Your task to perform on an android device: Add "logitech g pro" to the cart on ebay.com, then select checkout. Image 0: 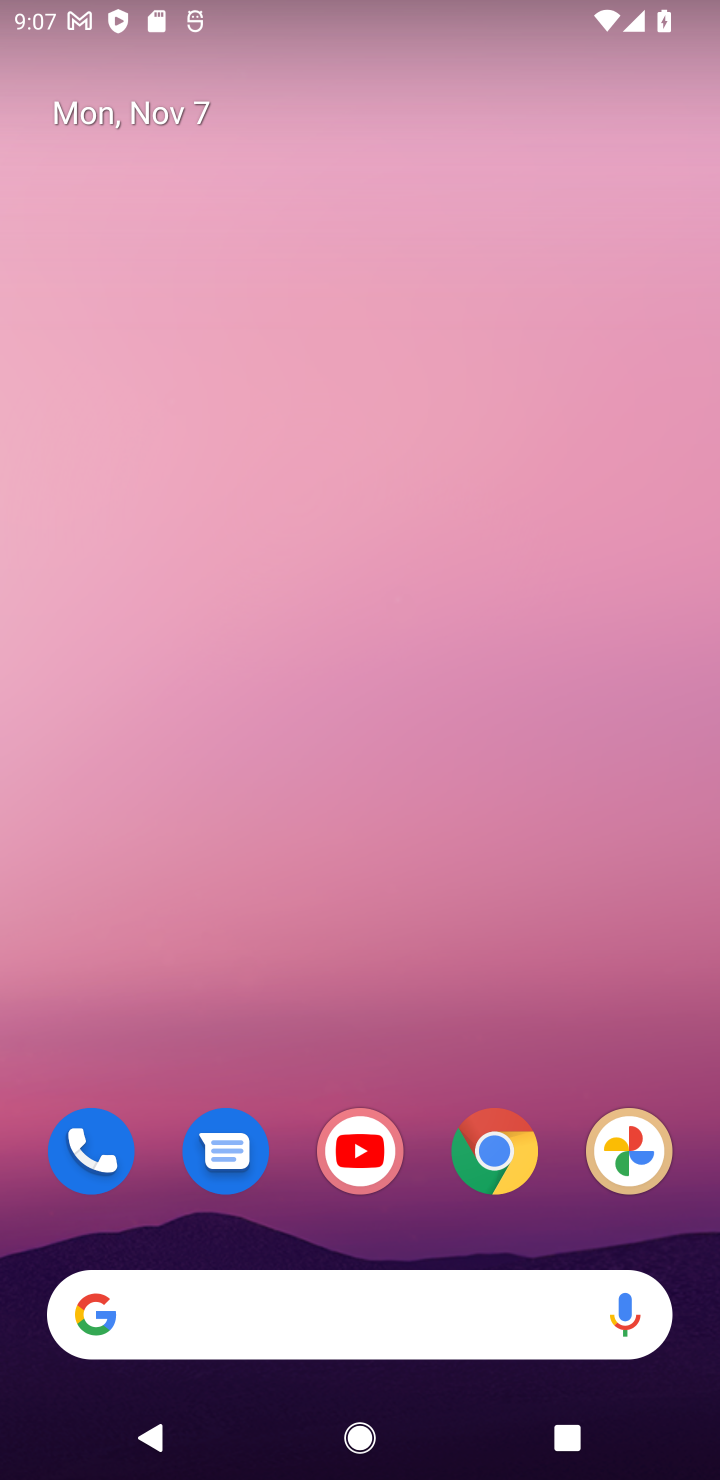
Step 0: press home button
Your task to perform on an android device: Add "logitech g pro" to the cart on ebay.com, then select checkout. Image 1: 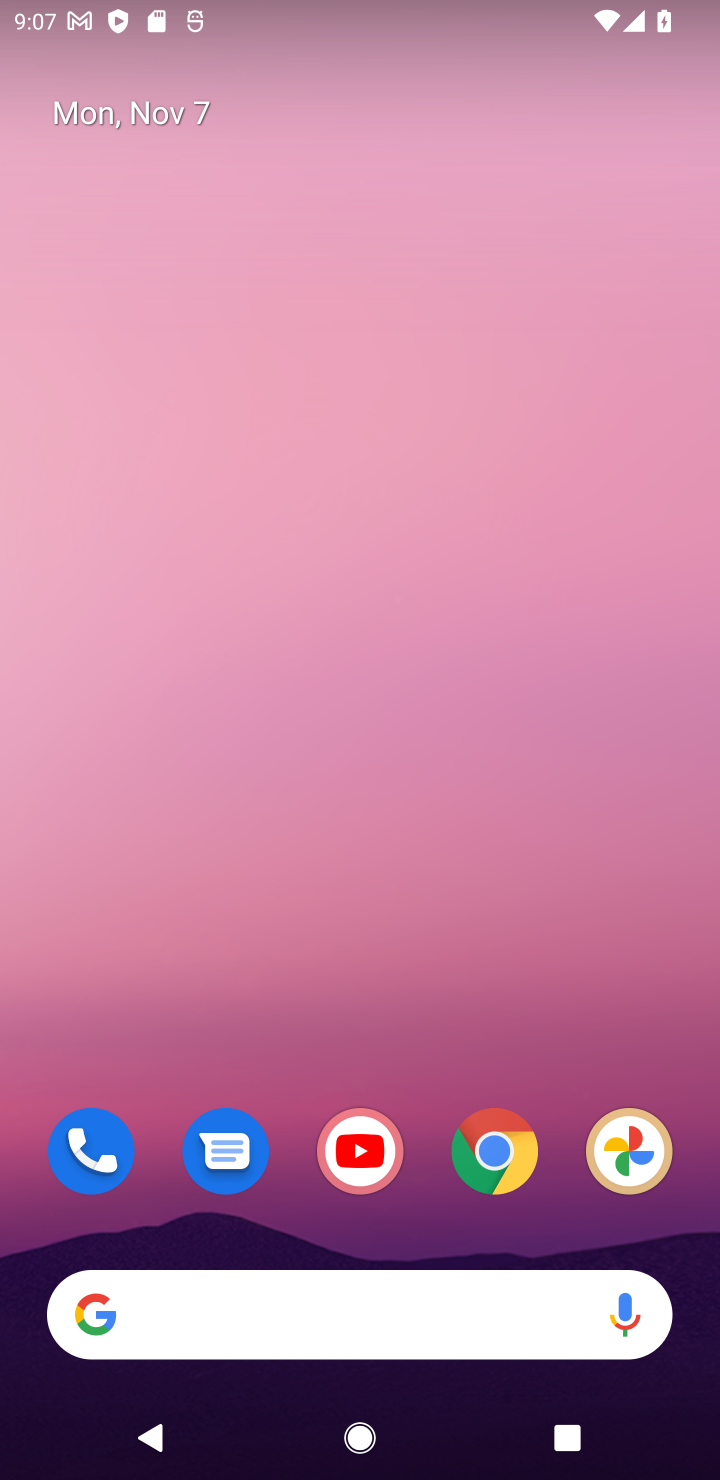
Step 1: click (511, 1159)
Your task to perform on an android device: Add "logitech g pro" to the cart on ebay.com, then select checkout. Image 2: 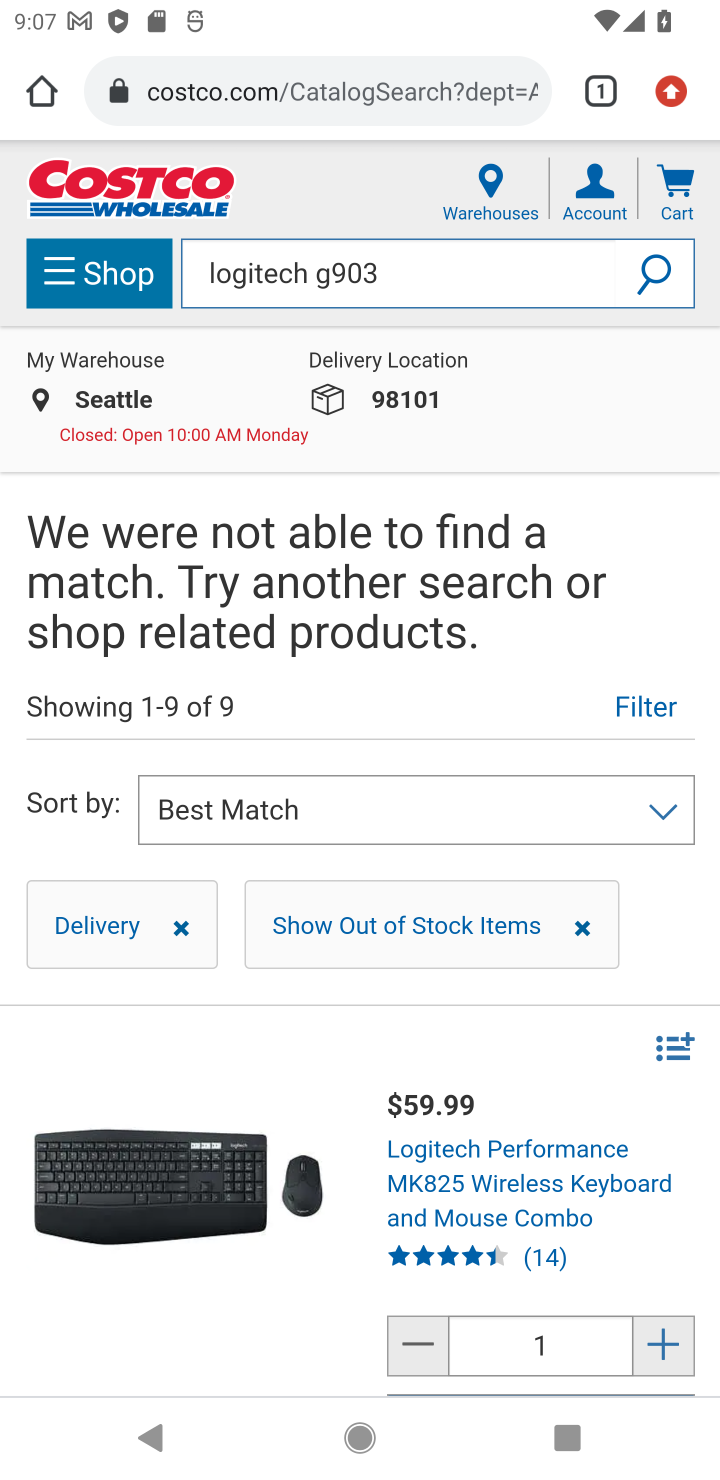
Step 2: click (314, 93)
Your task to perform on an android device: Add "logitech g pro" to the cart on ebay.com, then select checkout. Image 3: 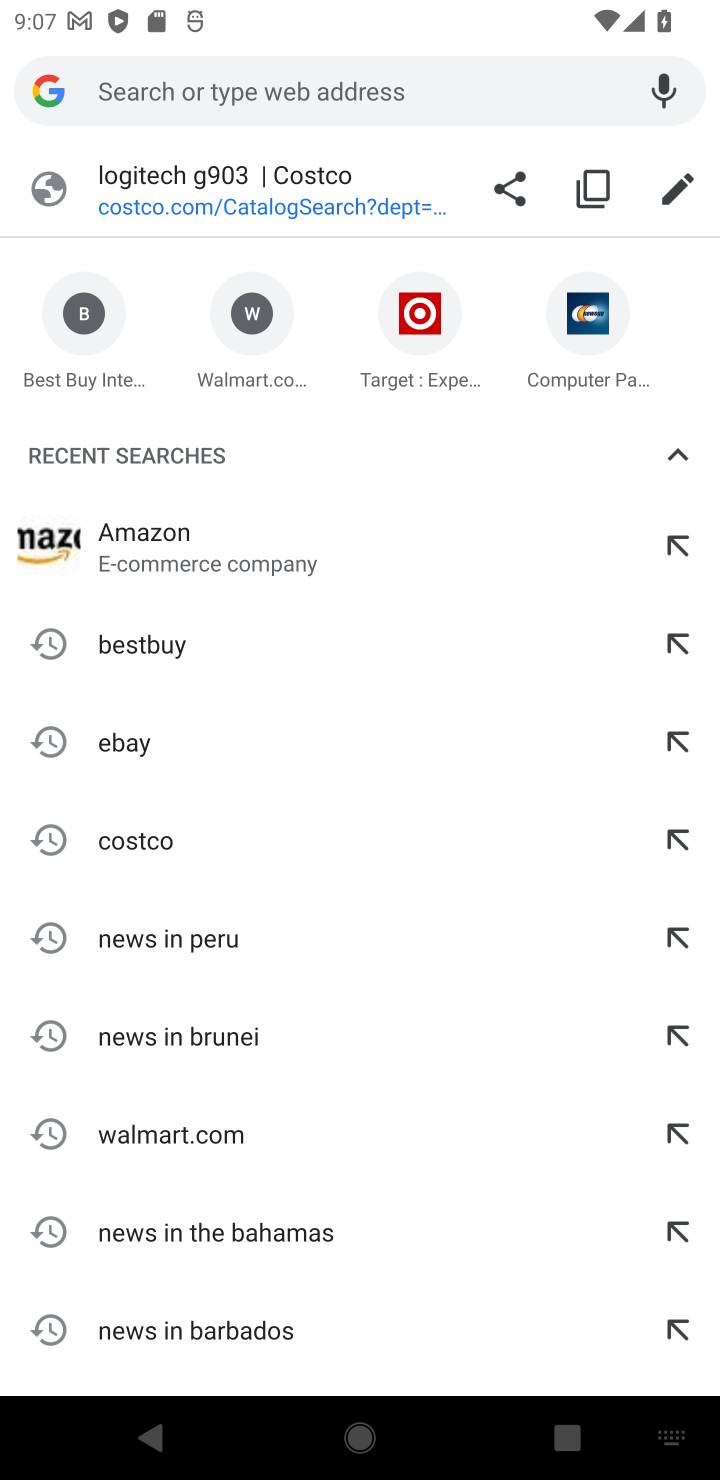
Step 3: click (121, 734)
Your task to perform on an android device: Add "logitech g pro" to the cart on ebay.com, then select checkout. Image 4: 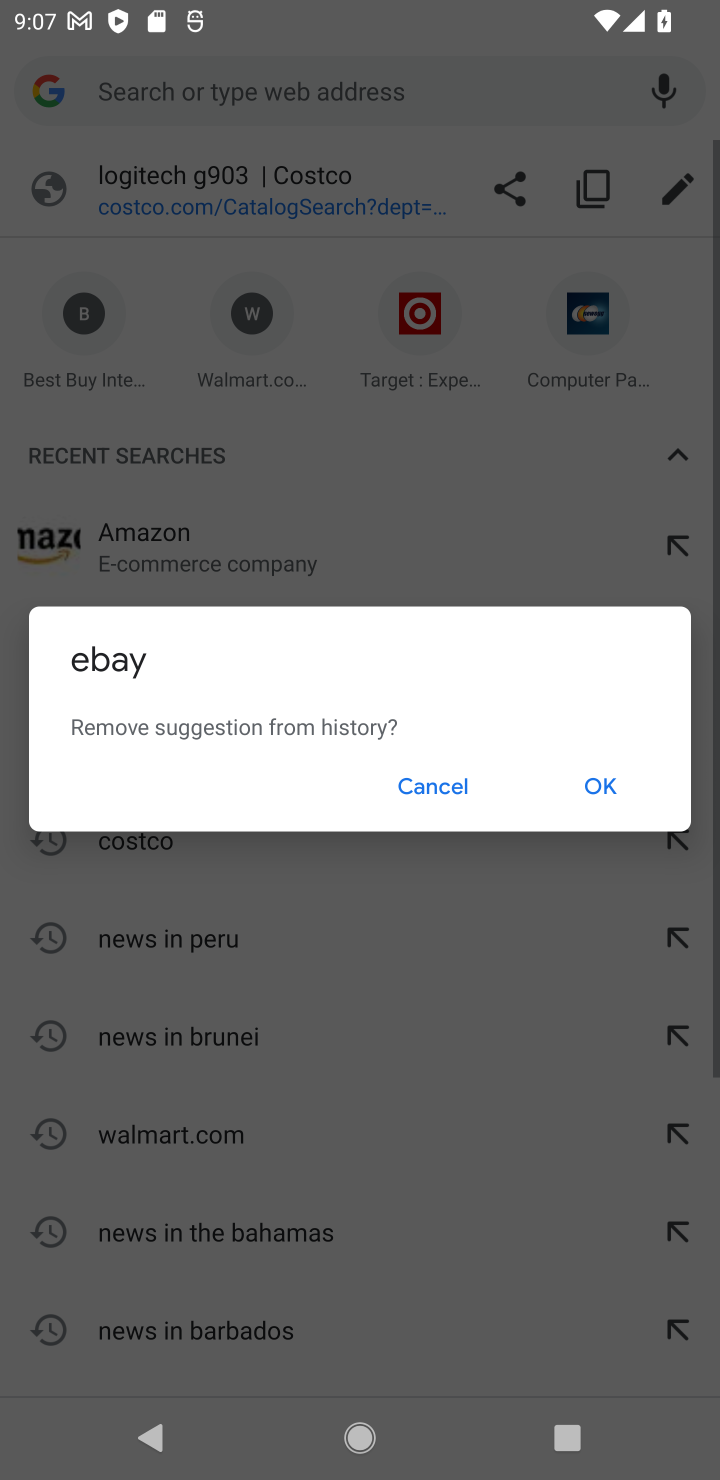
Step 4: click (431, 771)
Your task to perform on an android device: Add "logitech g pro" to the cart on ebay.com, then select checkout. Image 5: 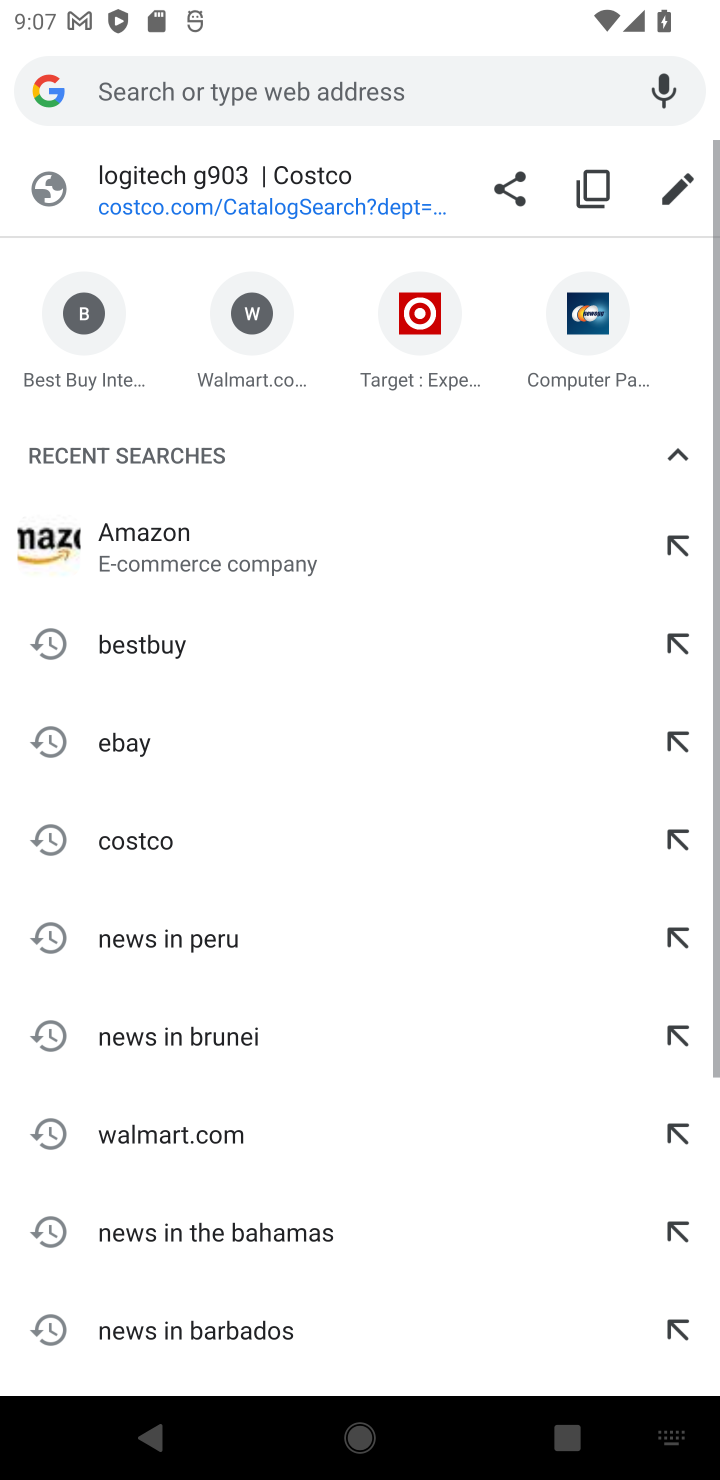
Step 5: click (119, 742)
Your task to perform on an android device: Add "logitech g pro" to the cart on ebay.com, then select checkout. Image 6: 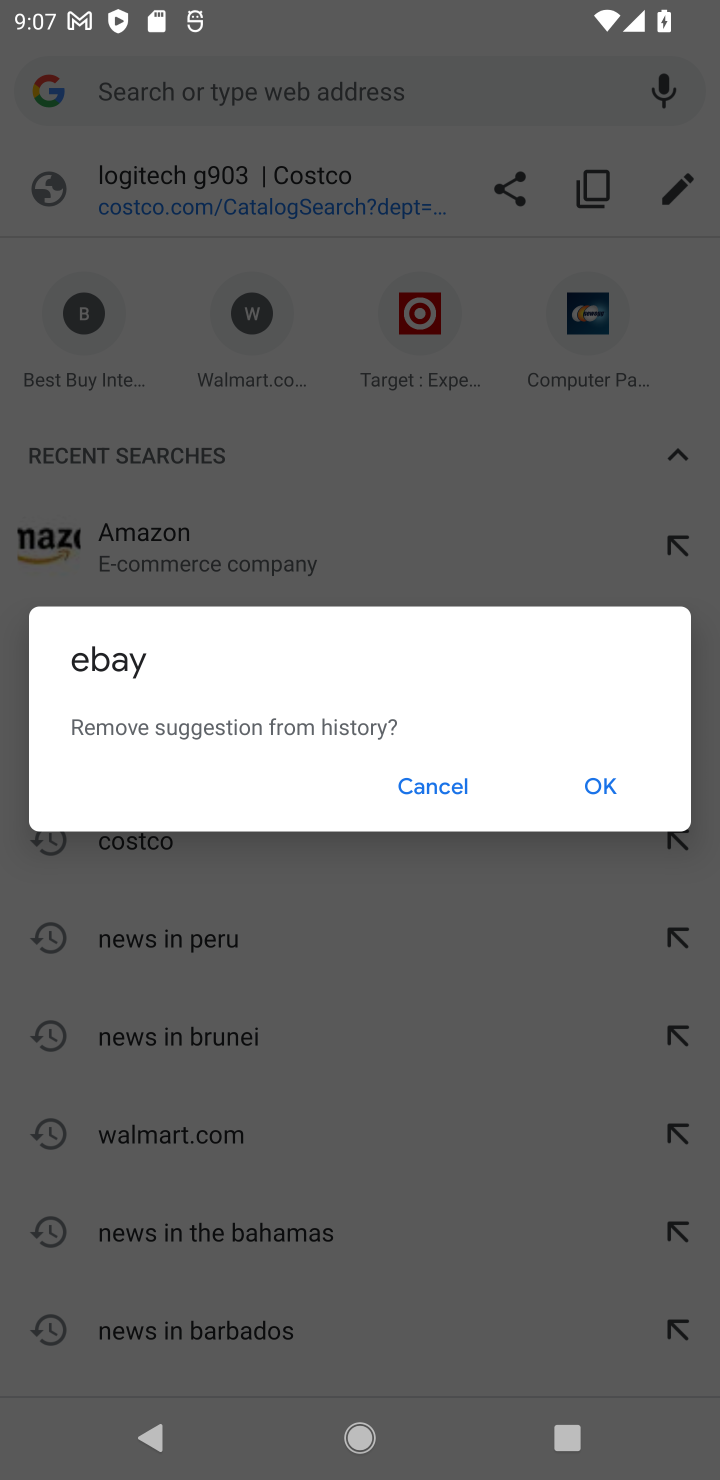
Step 6: click (446, 781)
Your task to perform on an android device: Add "logitech g pro" to the cart on ebay.com, then select checkout. Image 7: 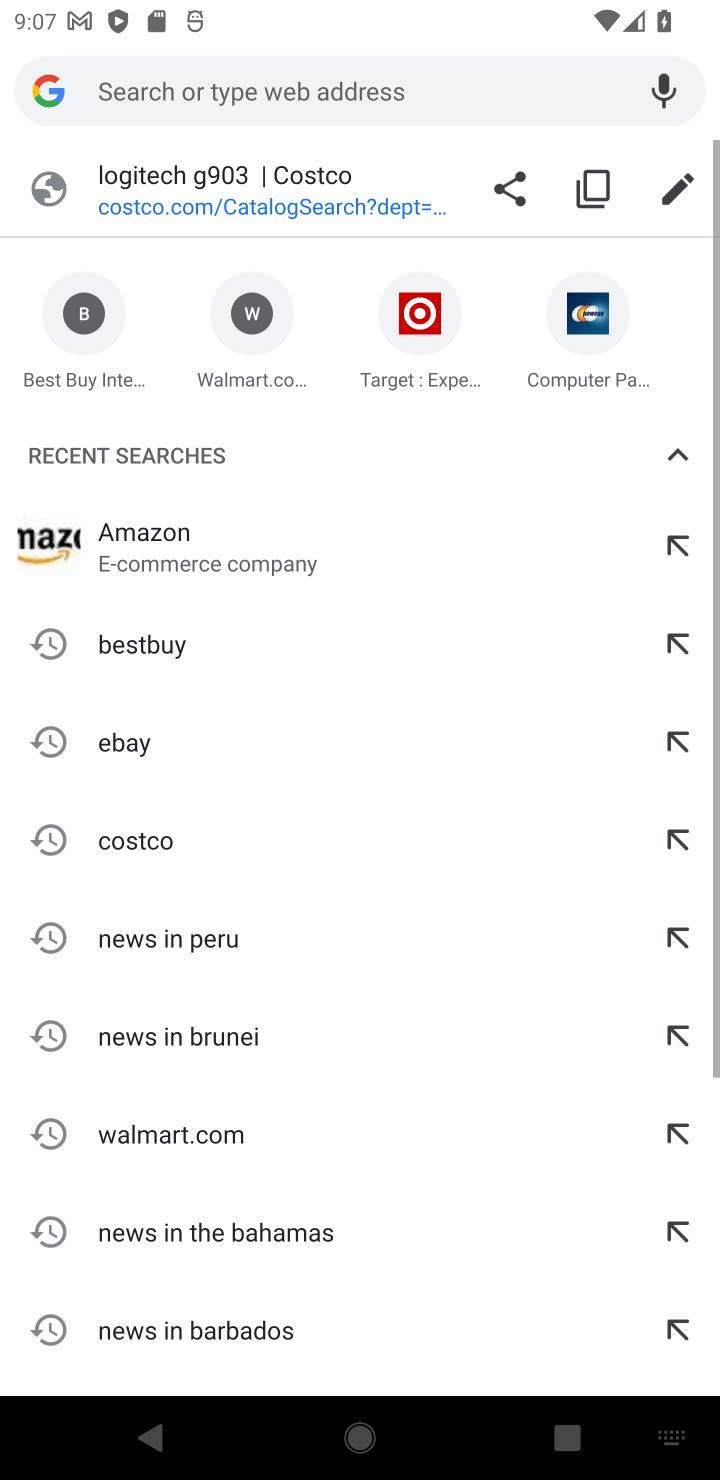
Step 7: click (109, 743)
Your task to perform on an android device: Add "logitech g pro" to the cart on ebay.com, then select checkout. Image 8: 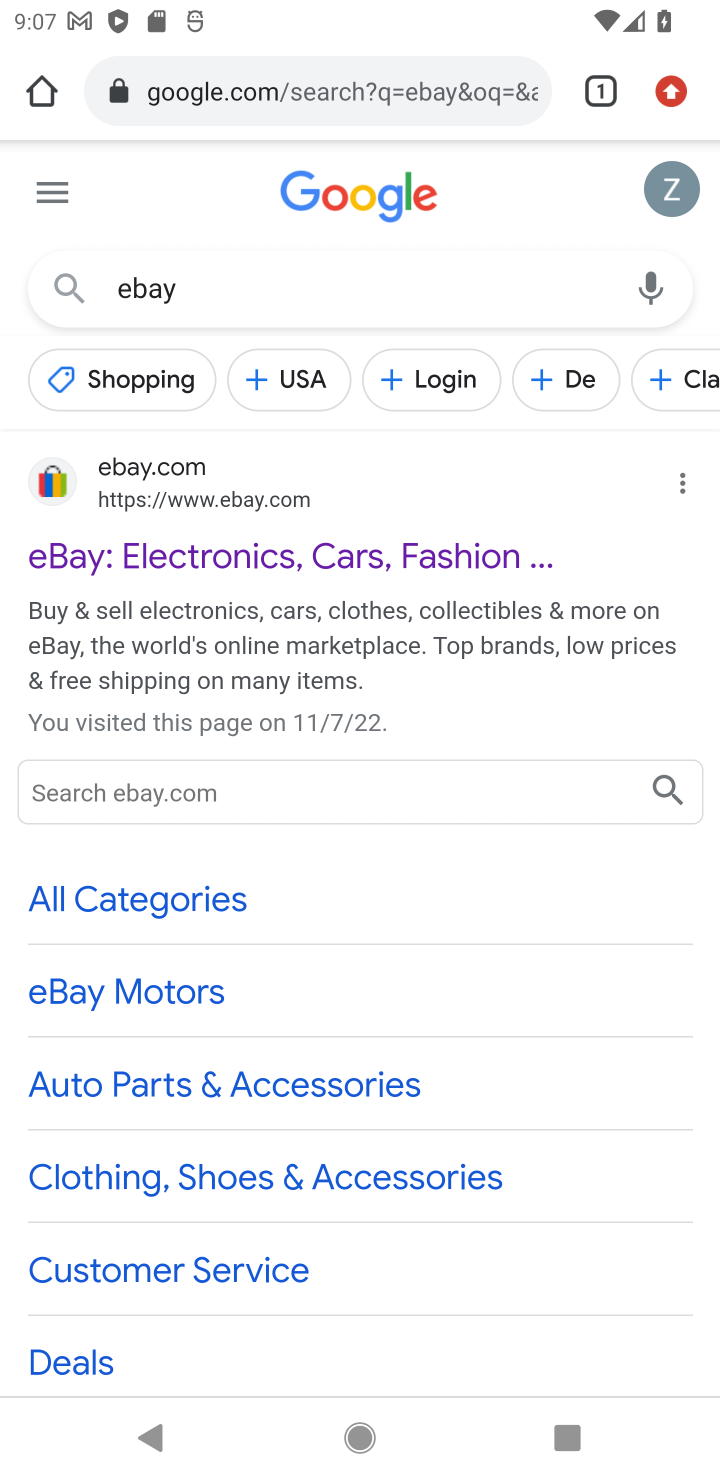
Step 8: click (227, 559)
Your task to perform on an android device: Add "logitech g pro" to the cart on ebay.com, then select checkout. Image 9: 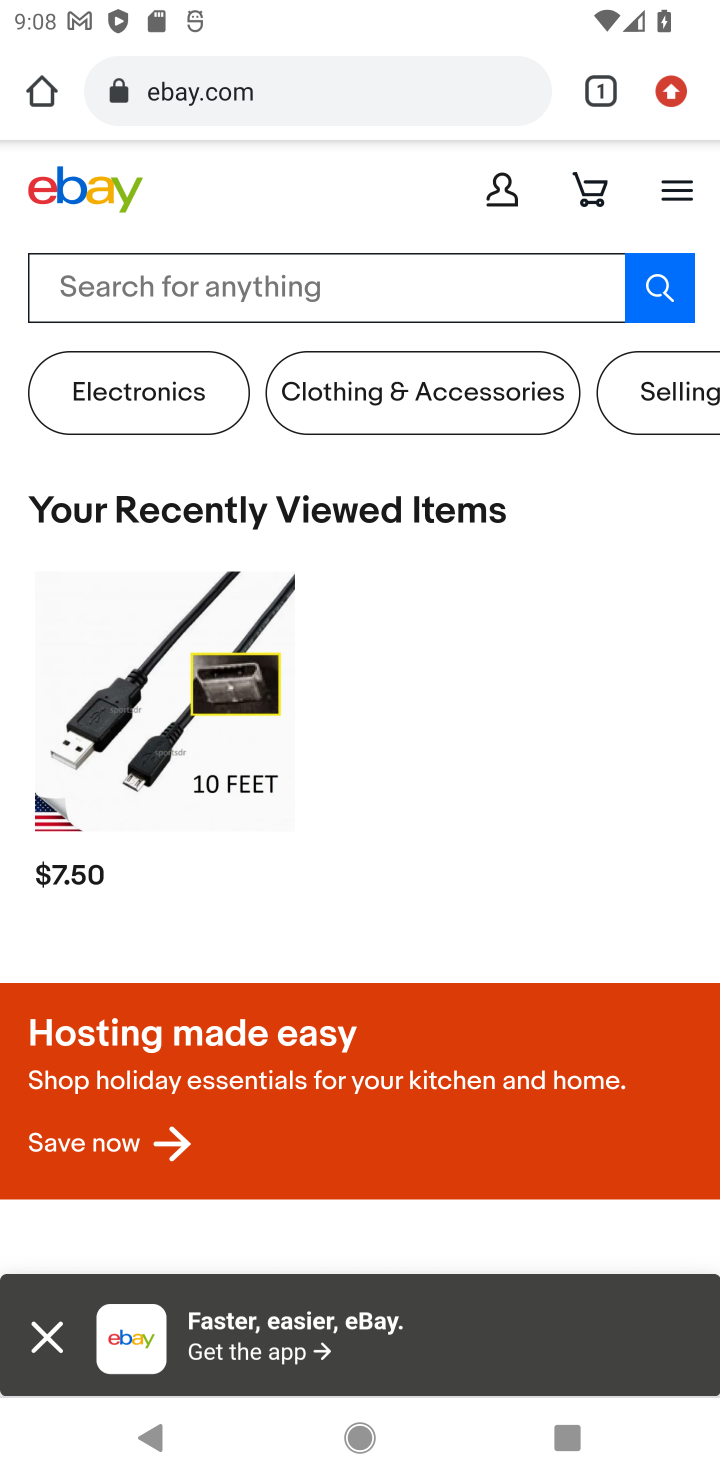
Step 9: click (289, 274)
Your task to perform on an android device: Add "logitech g pro" to the cart on ebay.com, then select checkout. Image 10: 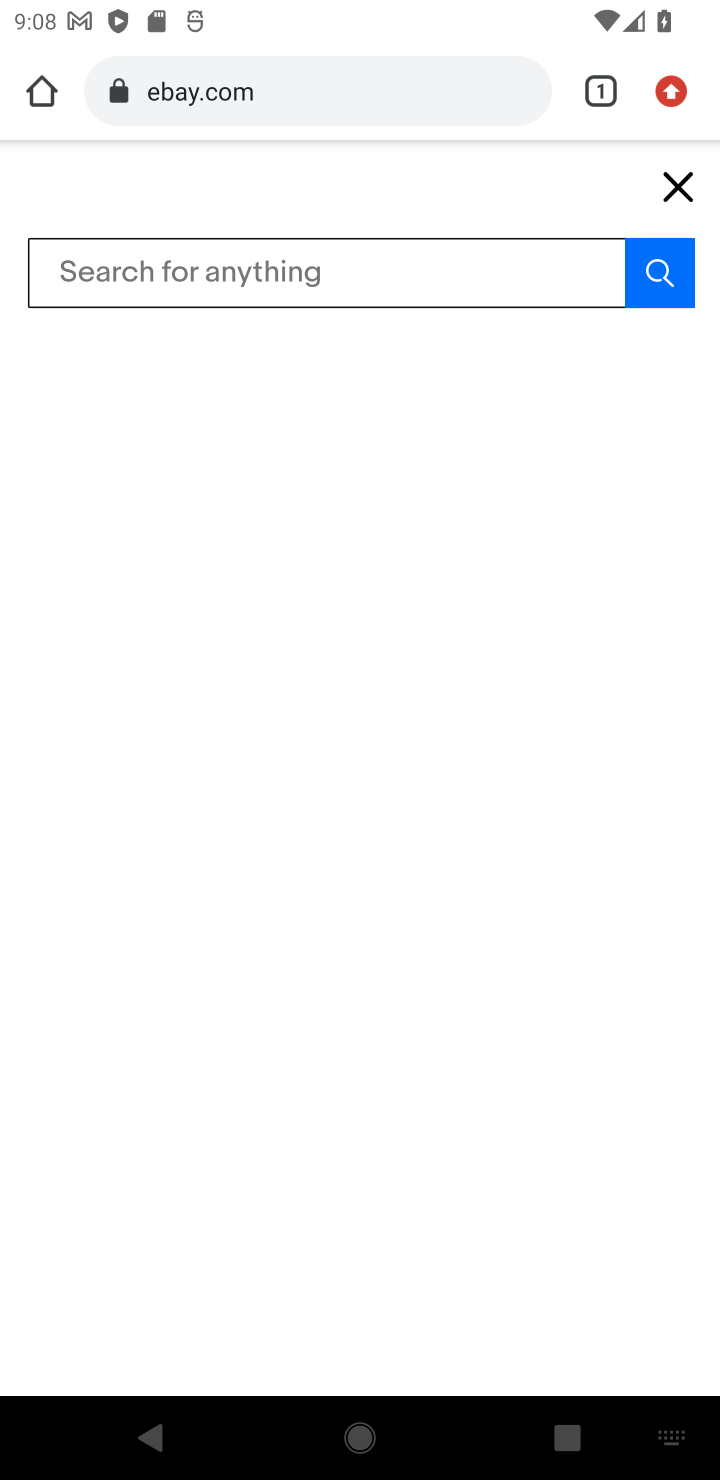
Step 10: press enter
Your task to perform on an android device: Add "logitech g pro" to the cart on ebay.com, then select checkout. Image 11: 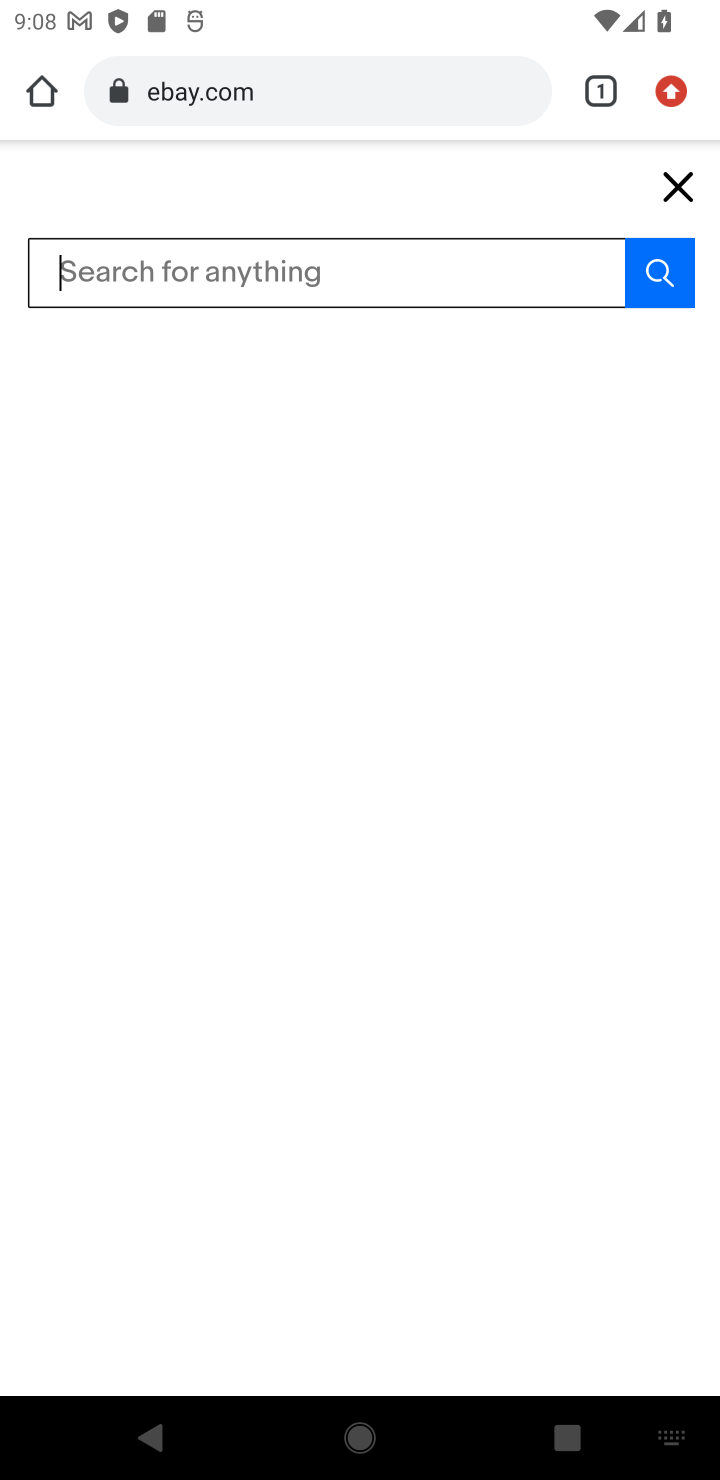
Step 11: type "logitech g pro"
Your task to perform on an android device: Add "logitech g pro" to the cart on ebay.com, then select checkout. Image 12: 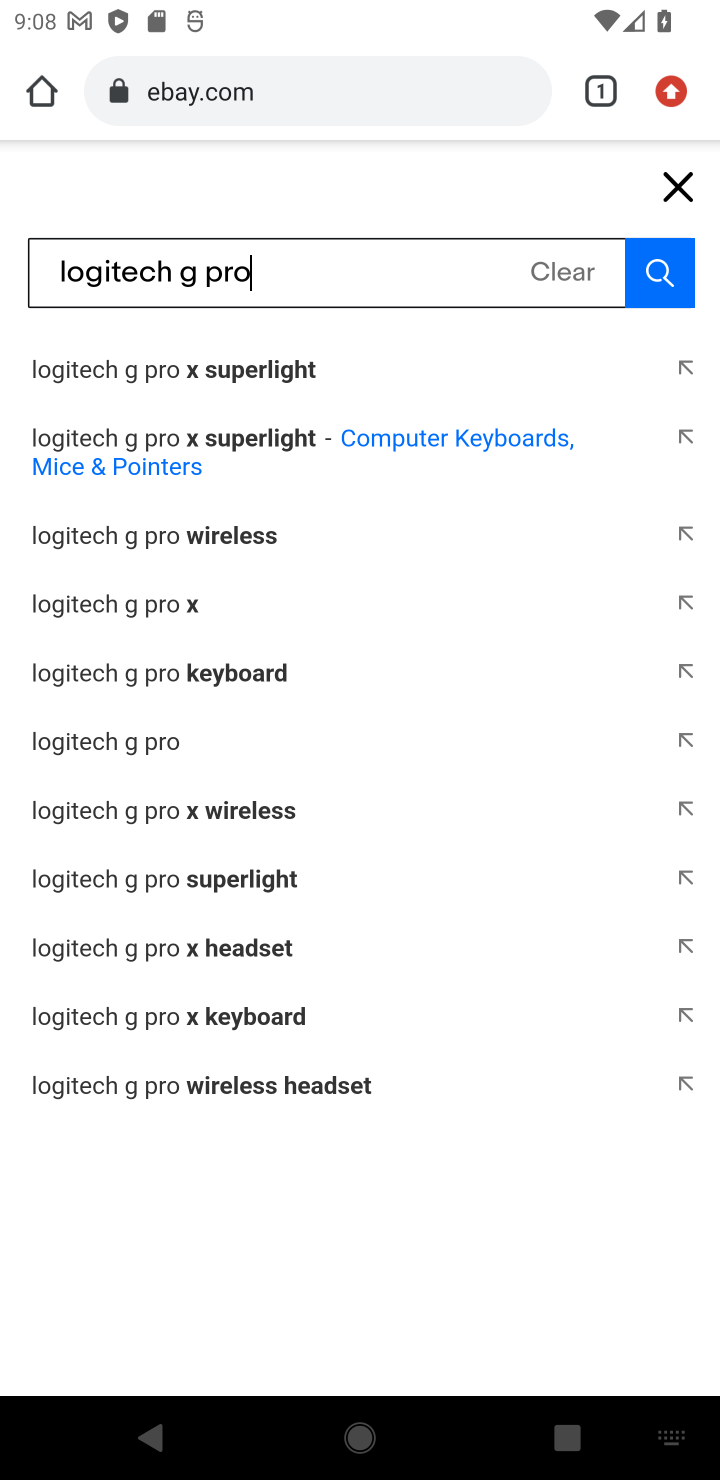
Step 12: press enter
Your task to perform on an android device: Add "logitech g pro" to the cart on ebay.com, then select checkout. Image 13: 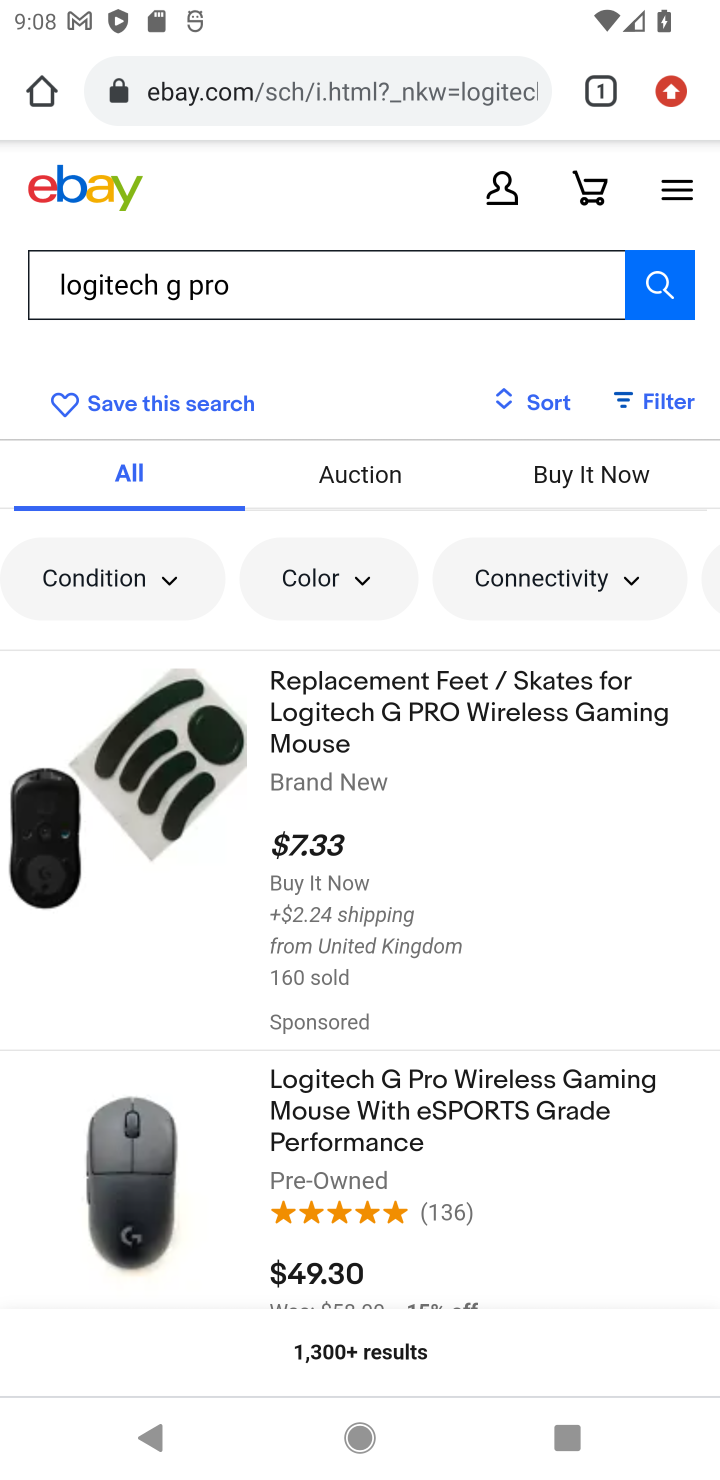
Step 13: drag from (428, 1187) to (590, 856)
Your task to perform on an android device: Add "logitech g pro" to the cart on ebay.com, then select checkout. Image 14: 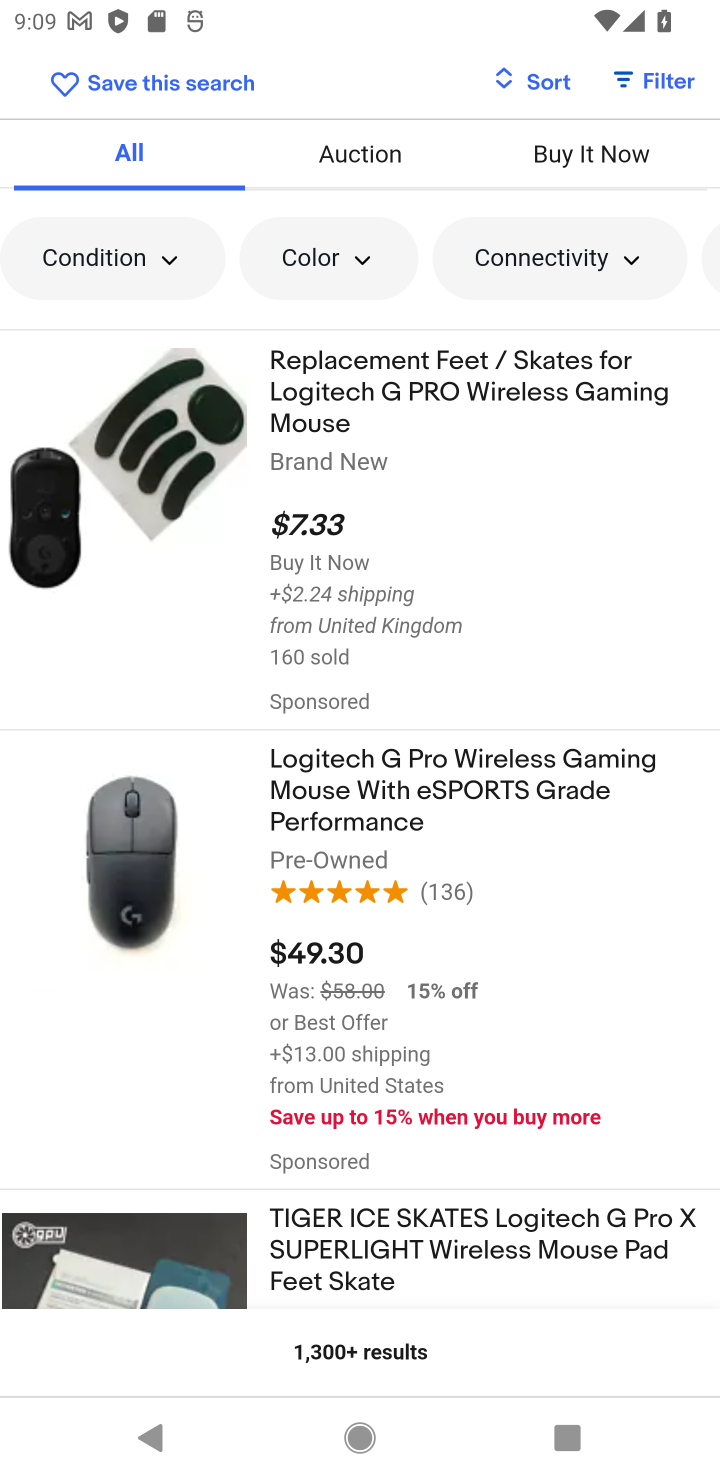
Step 14: click (352, 811)
Your task to perform on an android device: Add "logitech g pro" to the cart on ebay.com, then select checkout. Image 15: 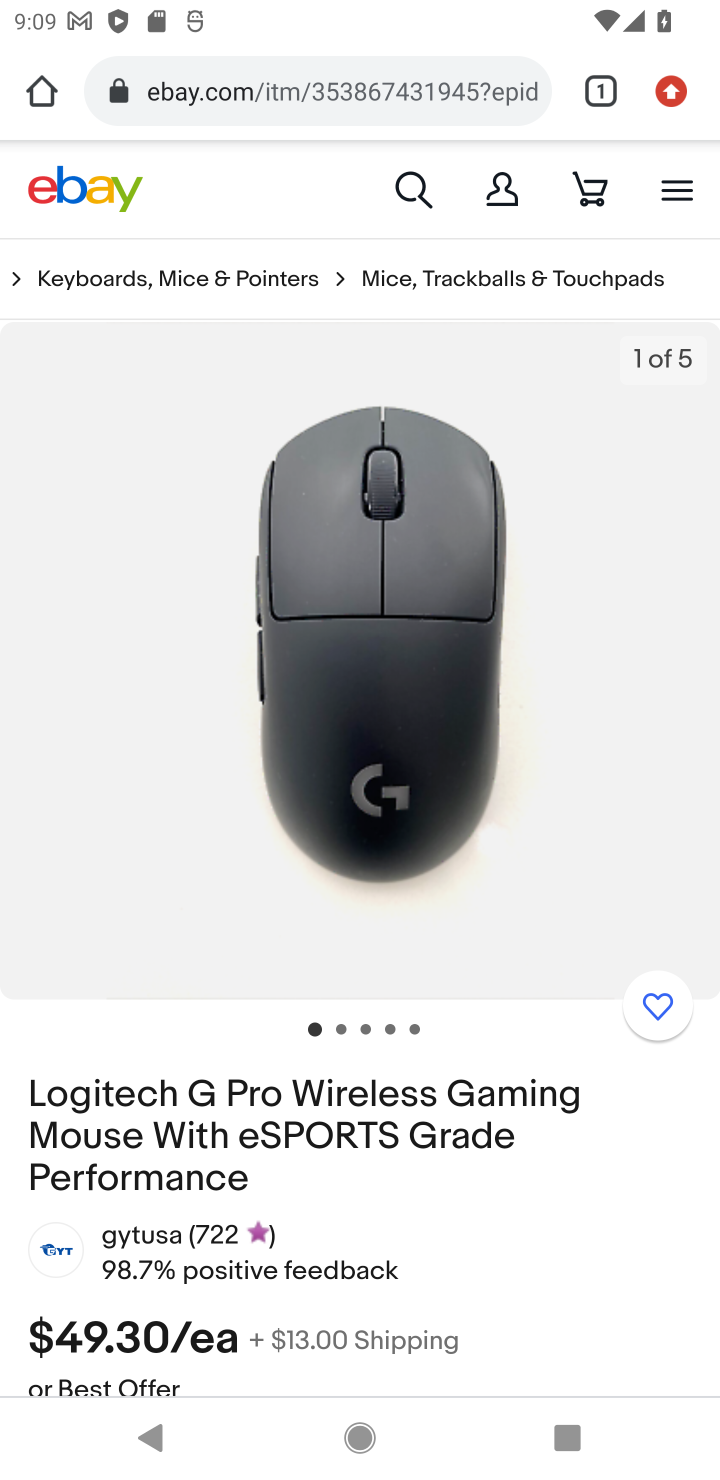
Step 15: drag from (448, 1238) to (706, 260)
Your task to perform on an android device: Add "logitech g pro" to the cart on ebay.com, then select checkout. Image 16: 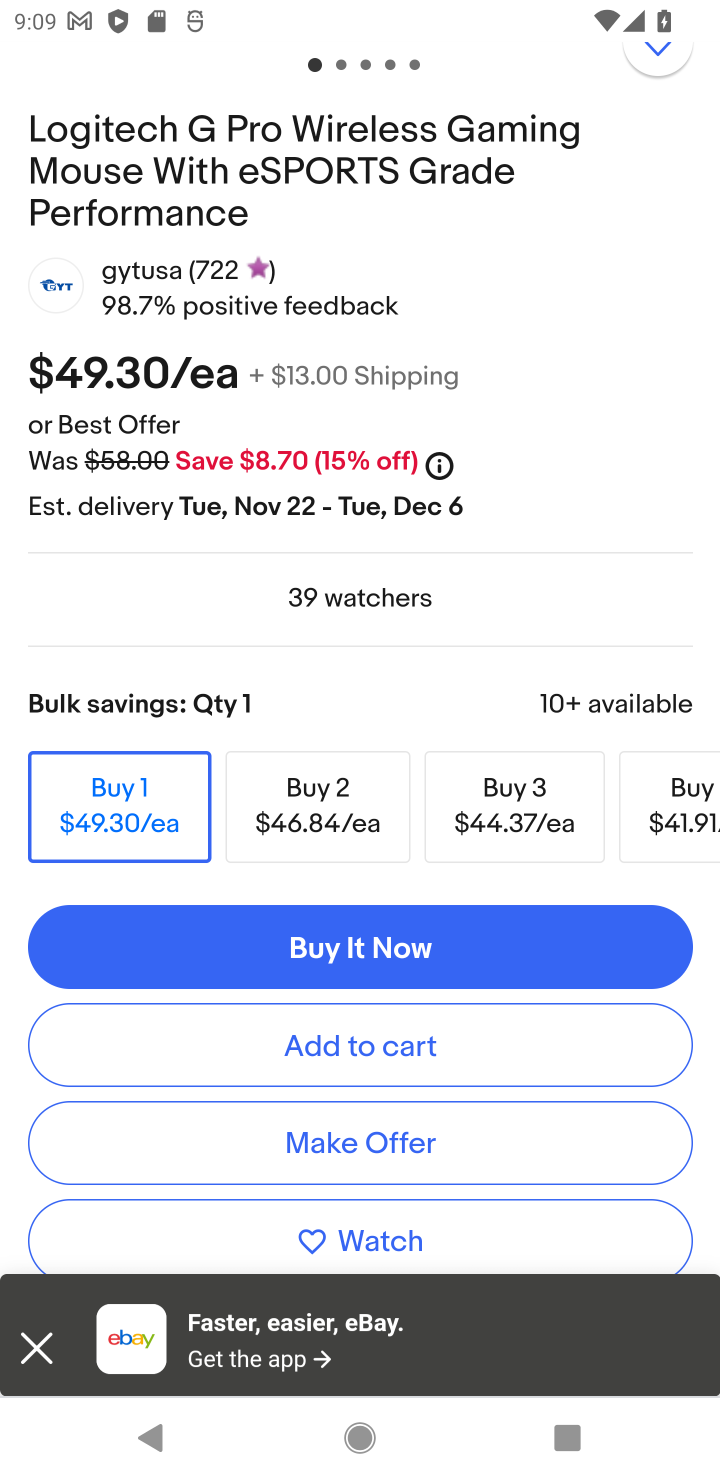
Step 16: click (338, 1046)
Your task to perform on an android device: Add "logitech g pro" to the cart on ebay.com, then select checkout. Image 17: 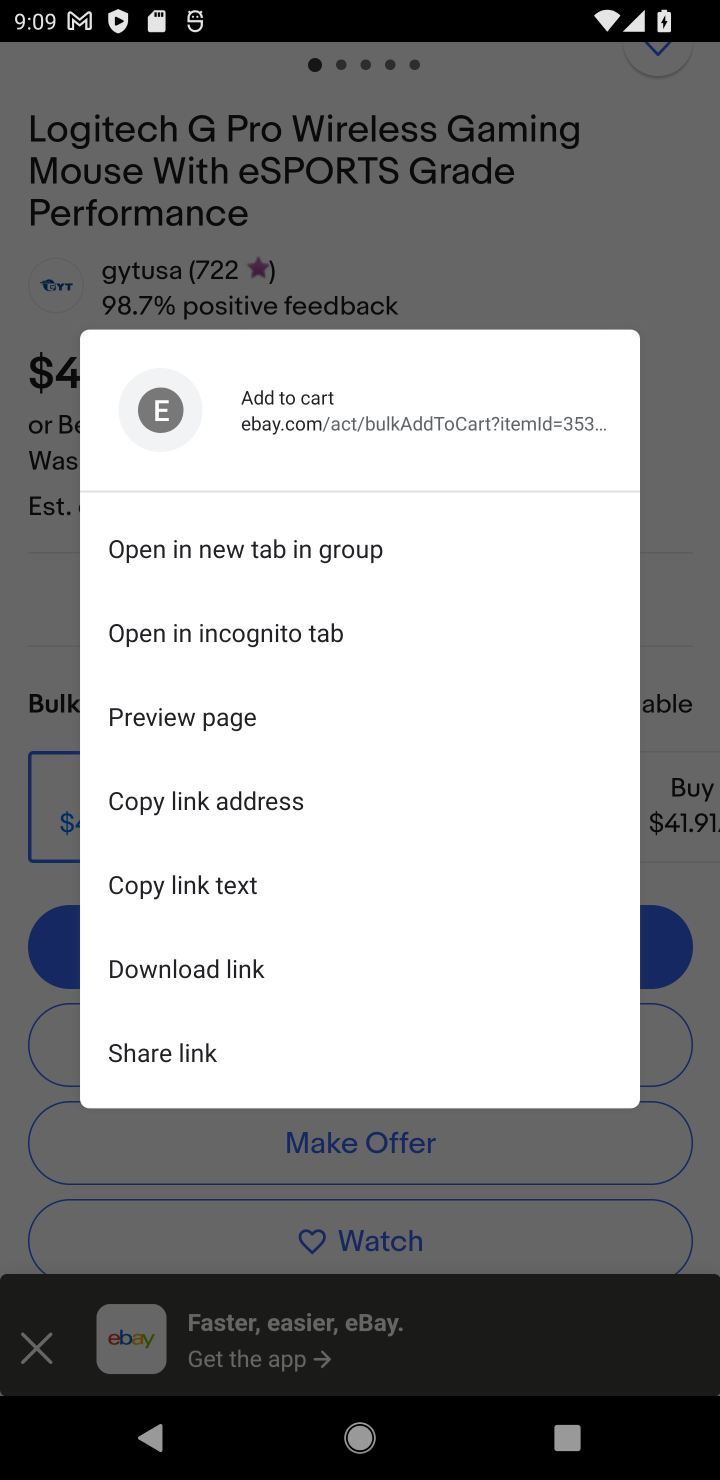
Step 17: click (659, 1052)
Your task to perform on an android device: Add "logitech g pro" to the cart on ebay.com, then select checkout. Image 18: 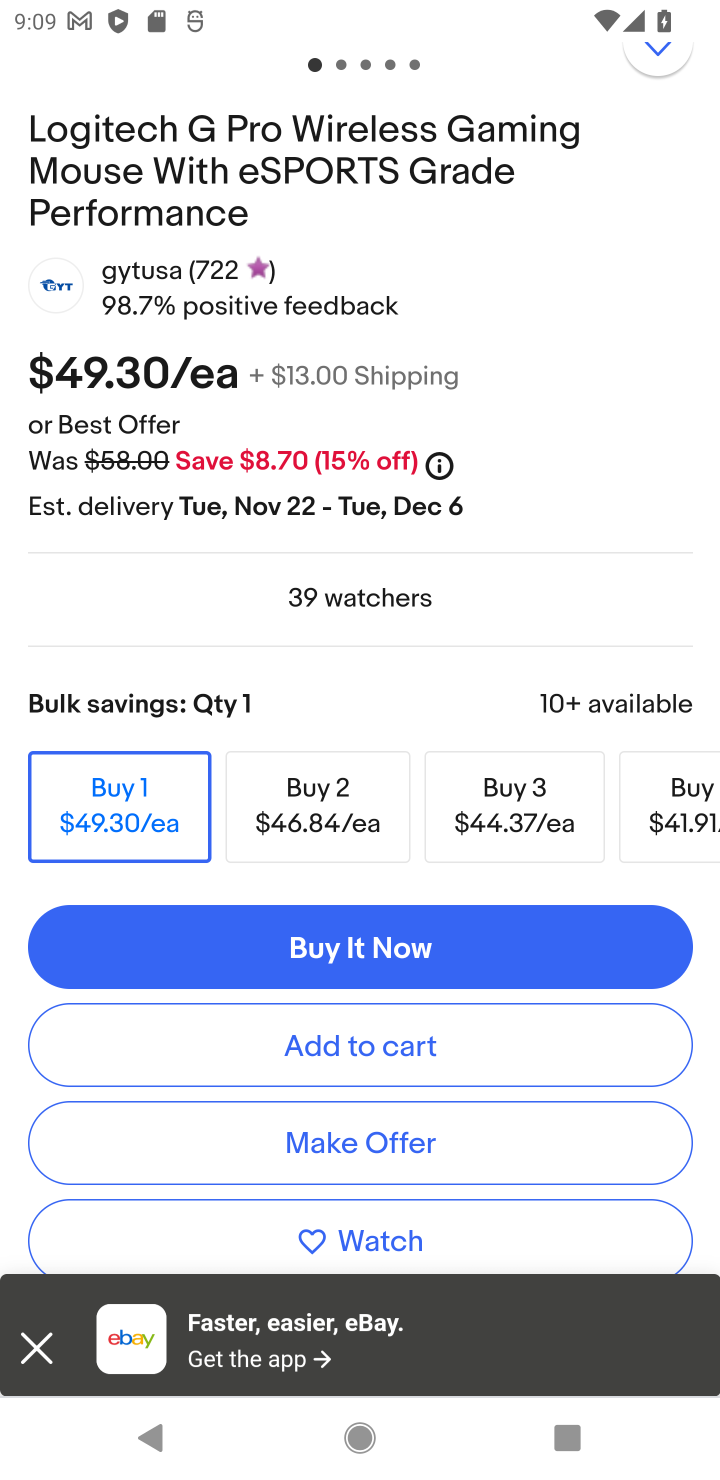
Step 18: click (378, 1048)
Your task to perform on an android device: Add "logitech g pro" to the cart on ebay.com, then select checkout. Image 19: 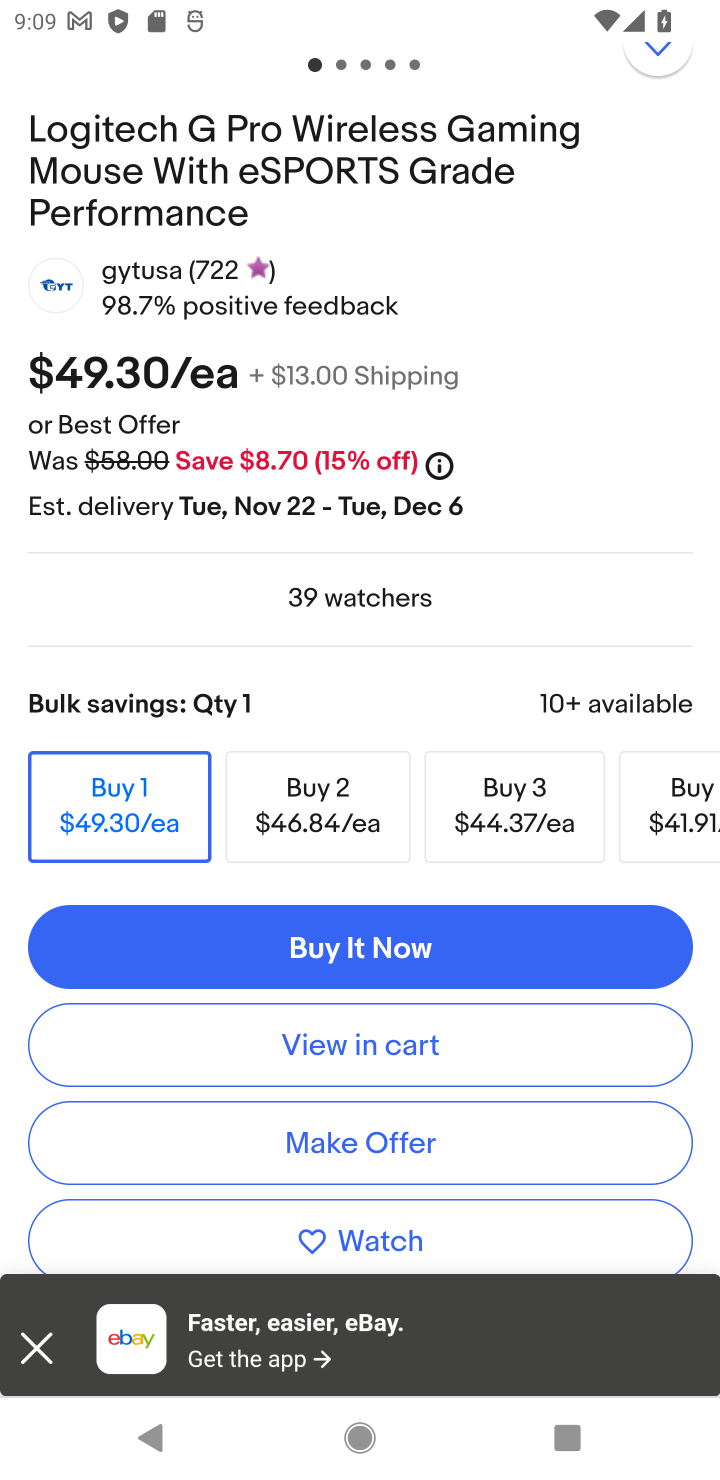
Step 19: click (378, 1050)
Your task to perform on an android device: Add "logitech g pro" to the cart on ebay.com, then select checkout. Image 20: 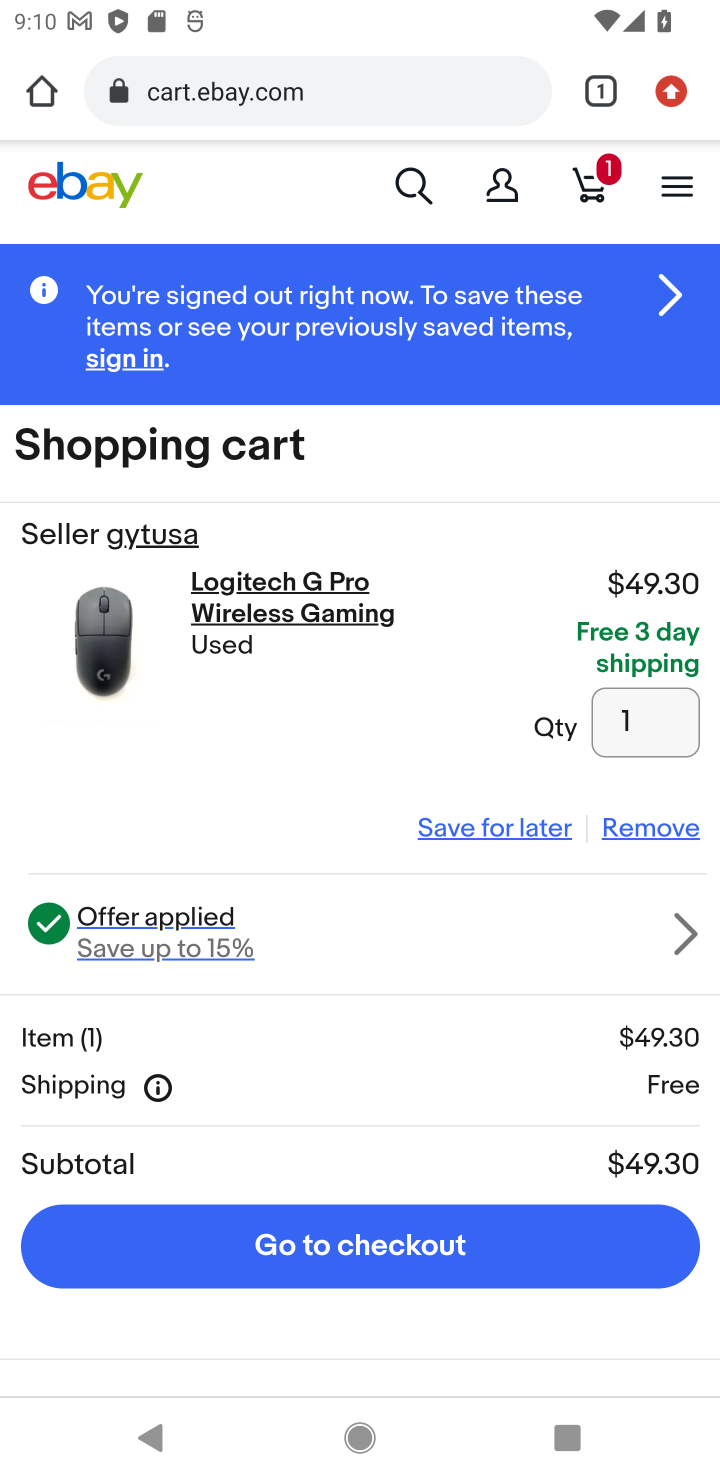
Step 20: drag from (340, 1043) to (536, 483)
Your task to perform on an android device: Add "logitech g pro" to the cart on ebay.com, then select checkout. Image 21: 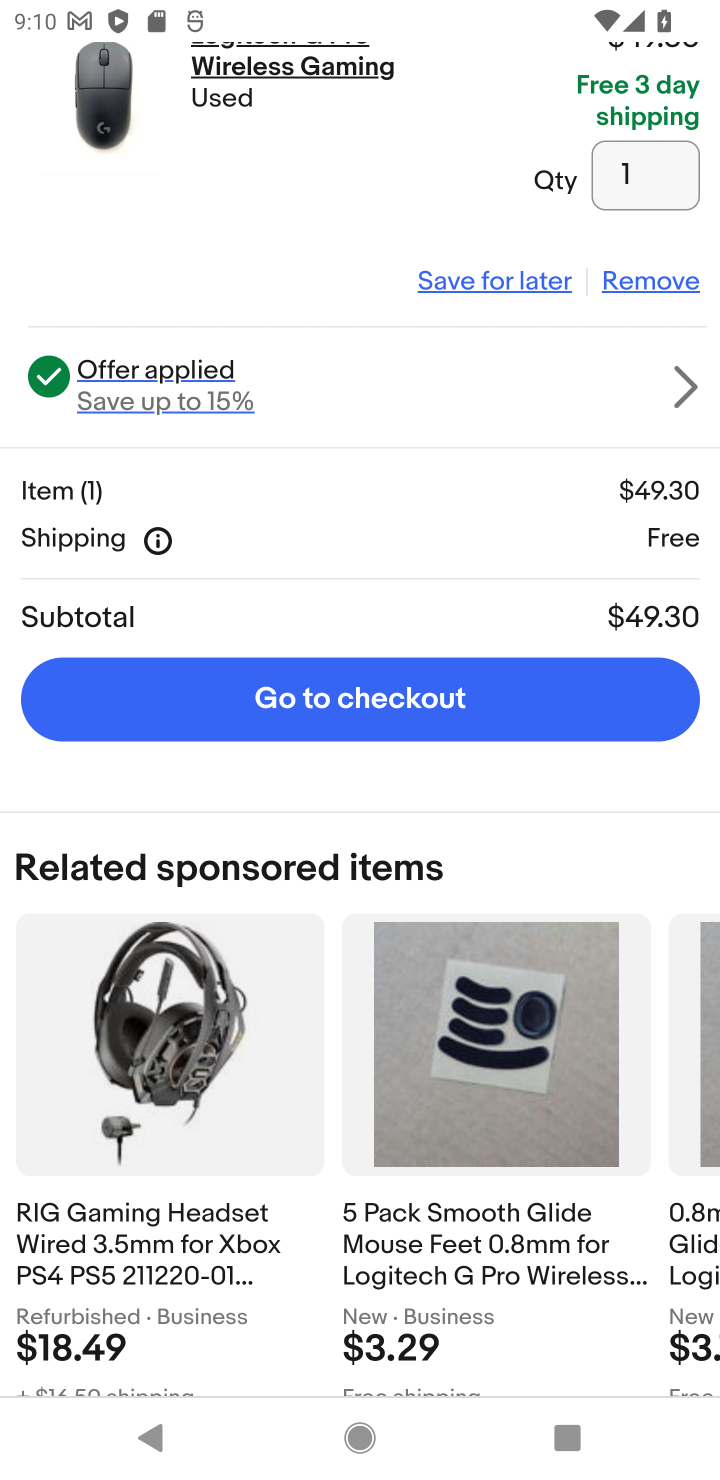
Step 21: click (366, 701)
Your task to perform on an android device: Add "logitech g pro" to the cart on ebay.com, then select checkout. Image 22: 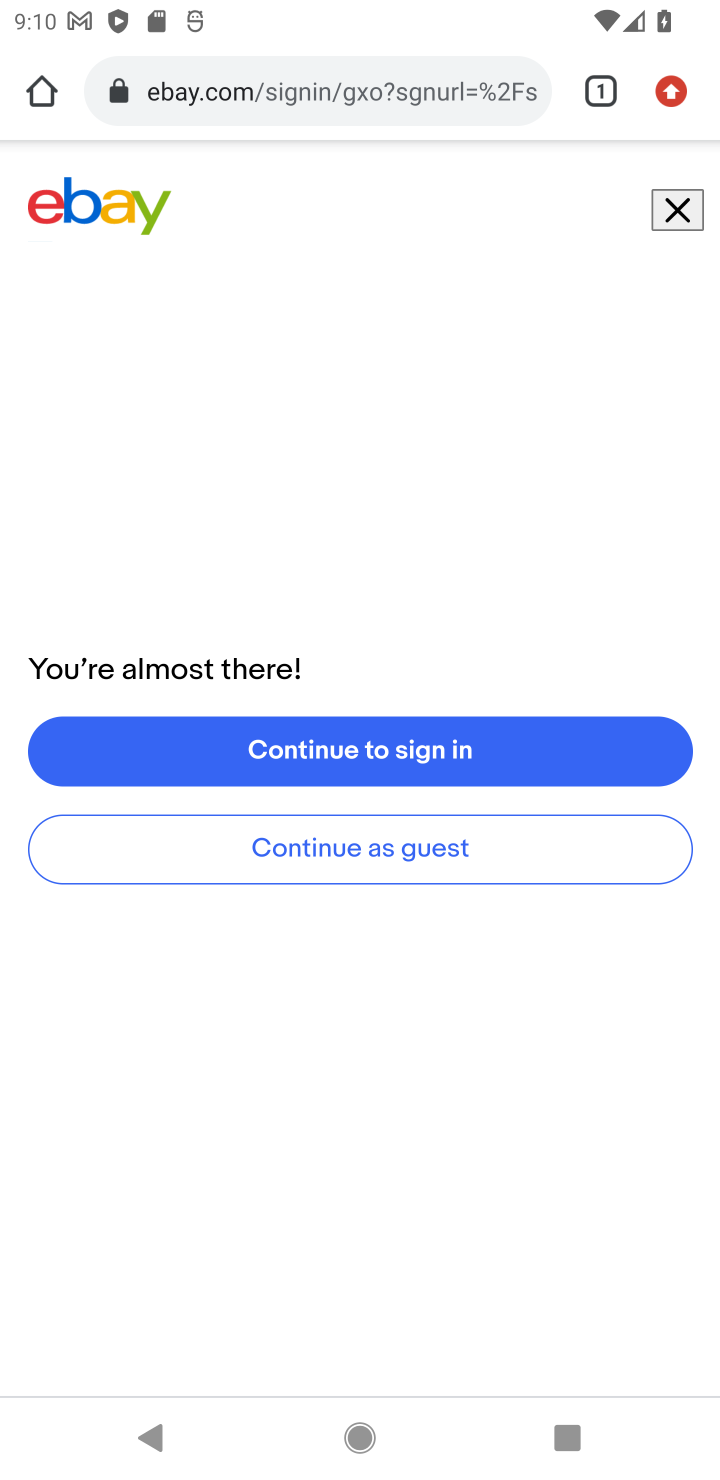
Step 22: task complete